Your task to perform on an android device: Go to Maps Image 0: 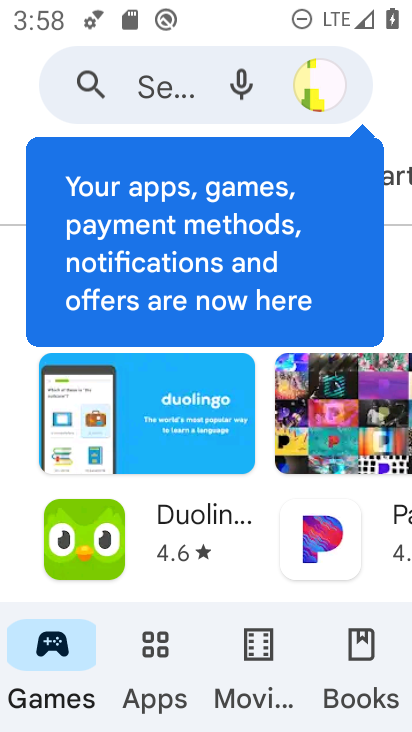
Step 0: press home button
Your task to perform on an android device: Go to Maps Image 1: 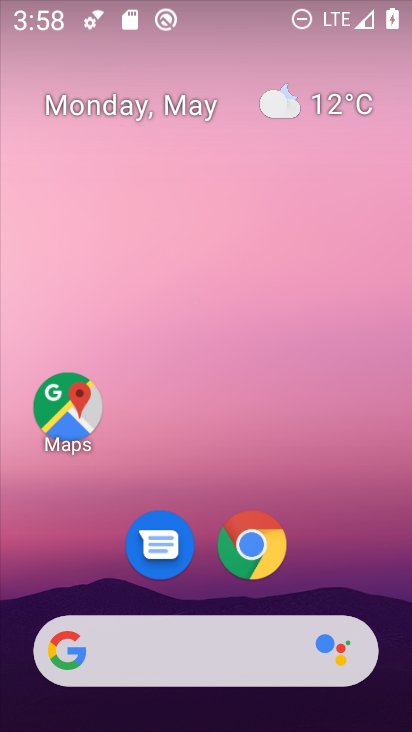
Step 1: click (63, 403)
Your task to perform on an android device: Go to Maps Image 2: 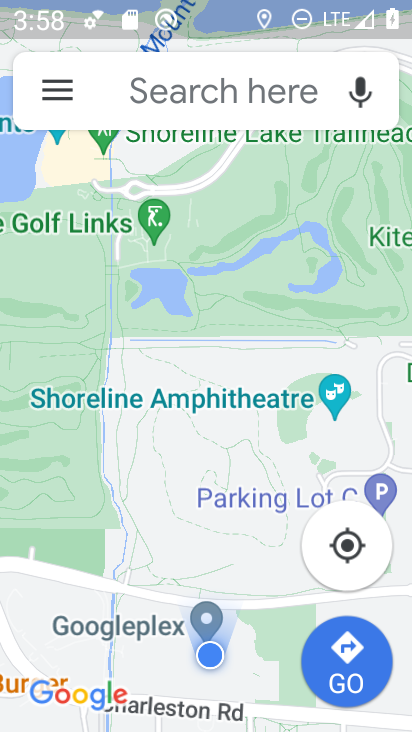
Step 2: task complete